Your task to perform on an android device: Search for Mexican restaurants on Maps Image 0: 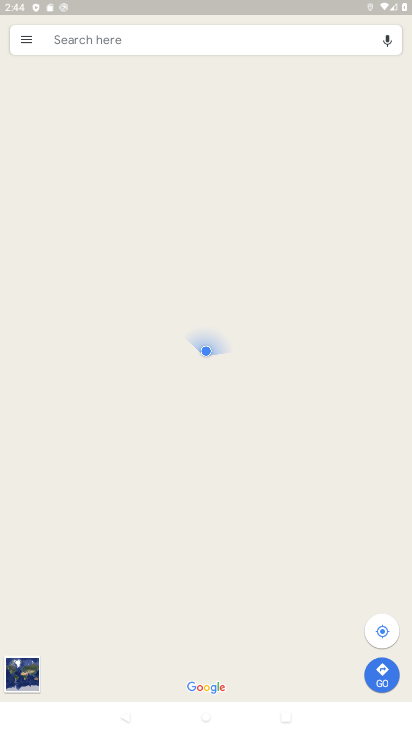
Step 0: click (155, 47)
Your task to perform on an android device: Search for Mexican restaurants on Maps Image 1: 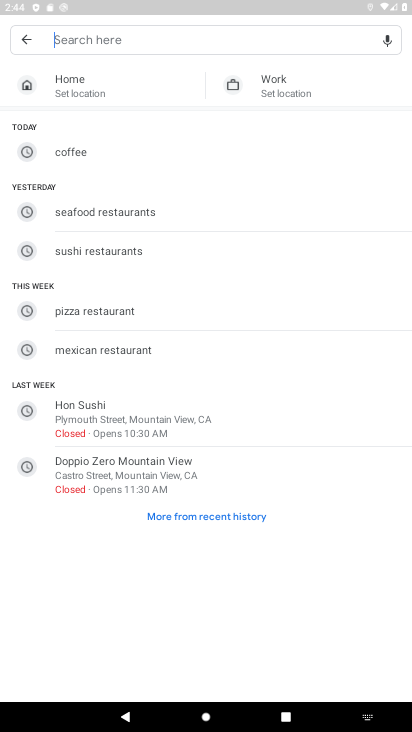
Step 1: type "mexican restaurants"
Your task to perform on an android device: Search for Mexican restaurants on Maps Image 2: 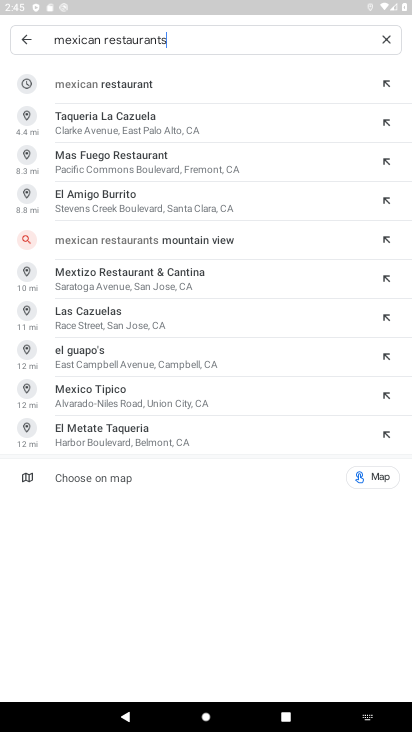
Step 2: click (151, 85)
Your task to perform on an android device: Search for Mexican restaurants on Maps Image 3: 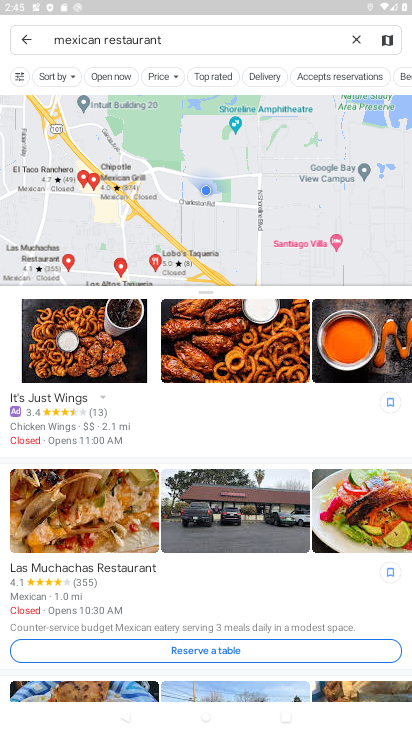
Step 3: task complete